Your task to perform on an android device: Go to CNN.com Image 0: 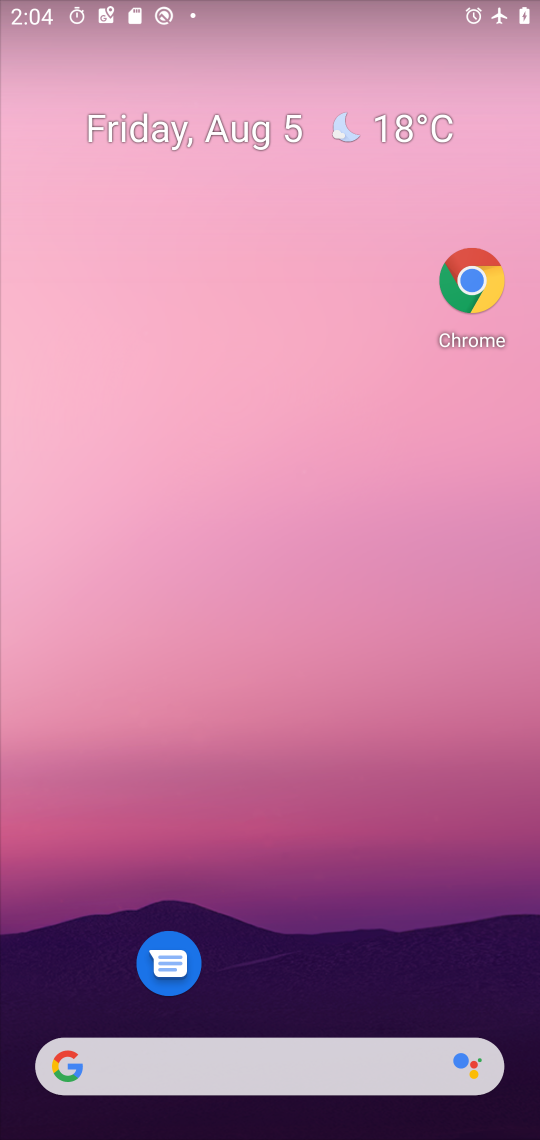
Step 0: drag from (322, 1093) to (325, 169)
Your task to perform on an android device: Go to CNN.com Image 1: 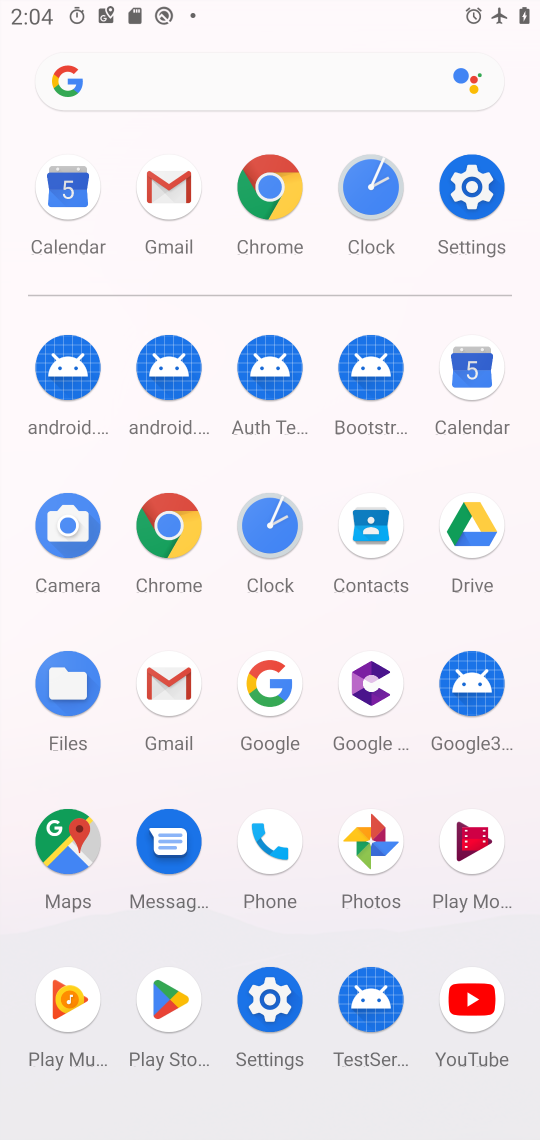
Step 1: click (267, 186)
Your task to perform on an android device: Go to CNN.com Image 2: 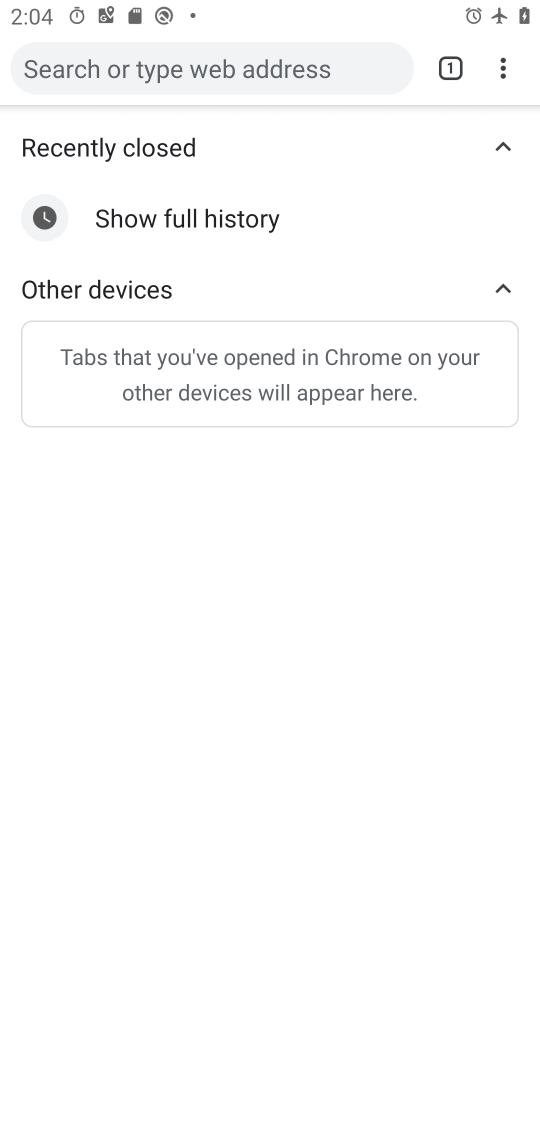
Step 2: click (195, 79)
Your task to perform on an android device: Go to CNN.com Image 3: 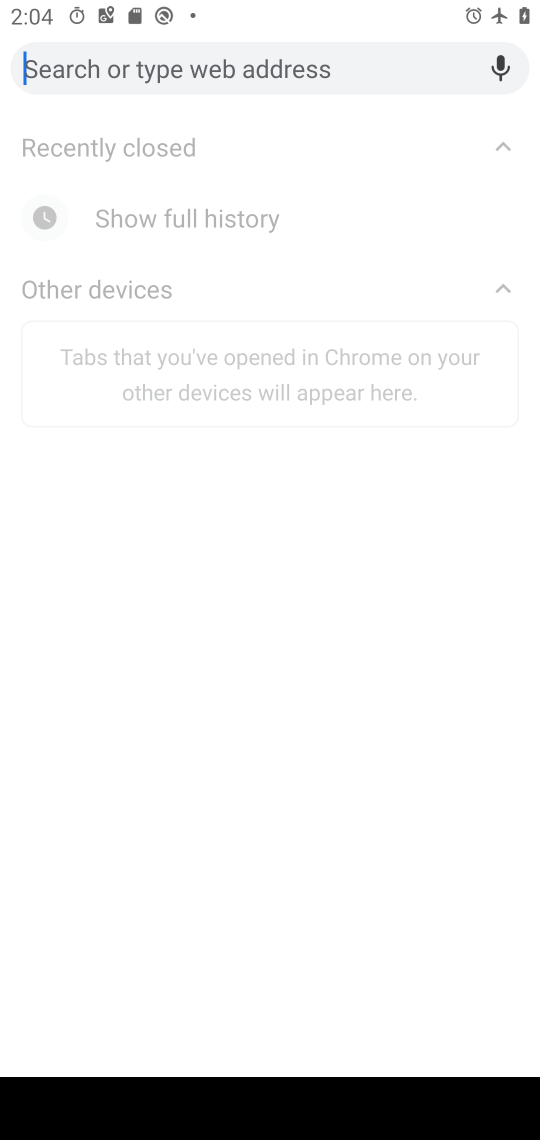
Step 3: type "CNN.com"
Your task to perform on an android device: Go to CNN.com Image 4: 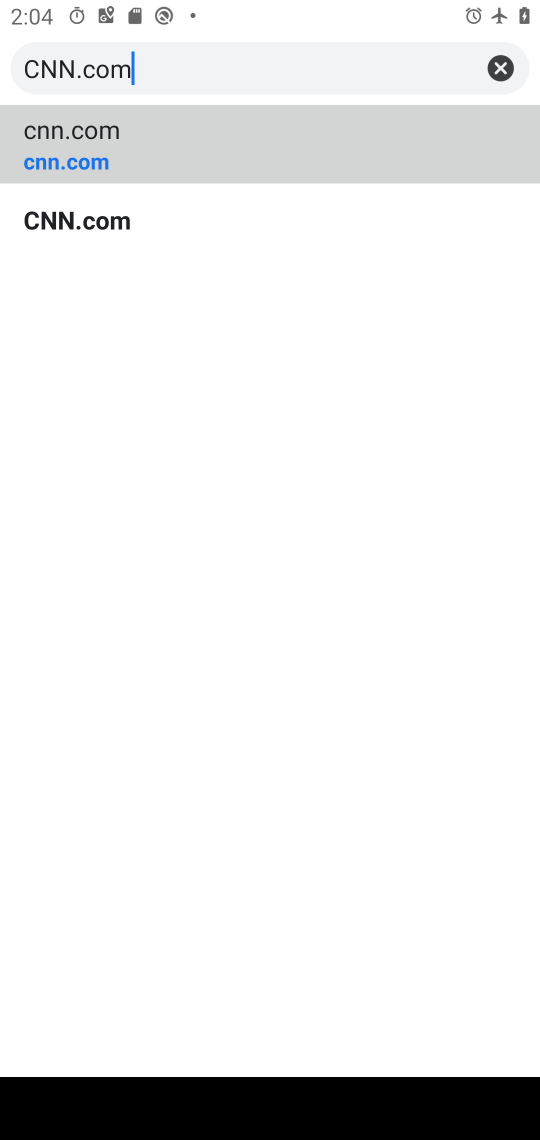
Step 4: click (93, 214)
Your task to perform on an android device: Go to CNN.com Image 5: 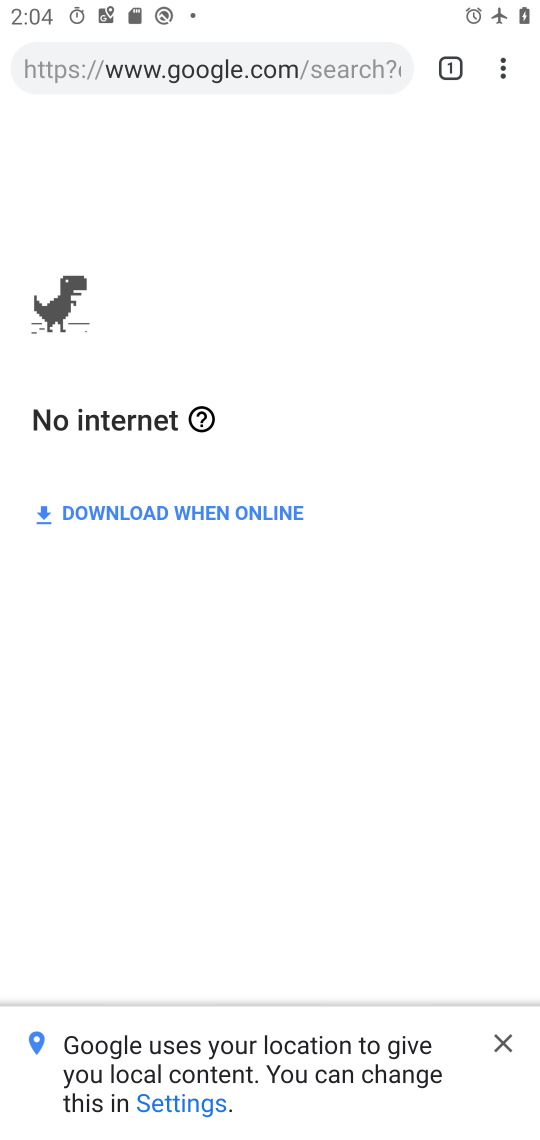
Step 5: task complete